Your task to perform on an android device: Go to Android settings Image 0: 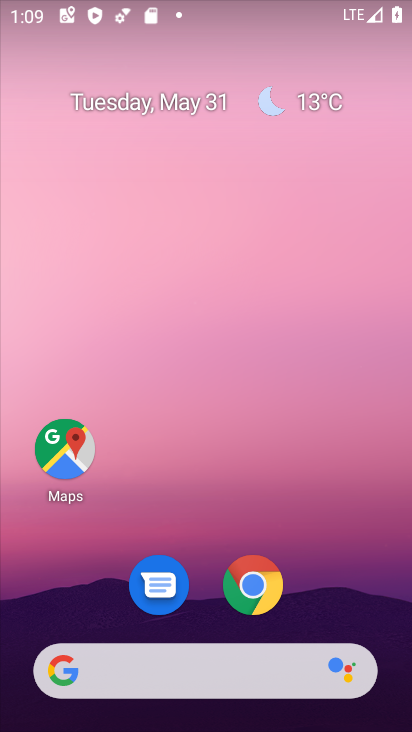
Step 0: drag from (216, 514) to (196, 36)
Your task to perform on an android device: Go to Android settings Image 1: 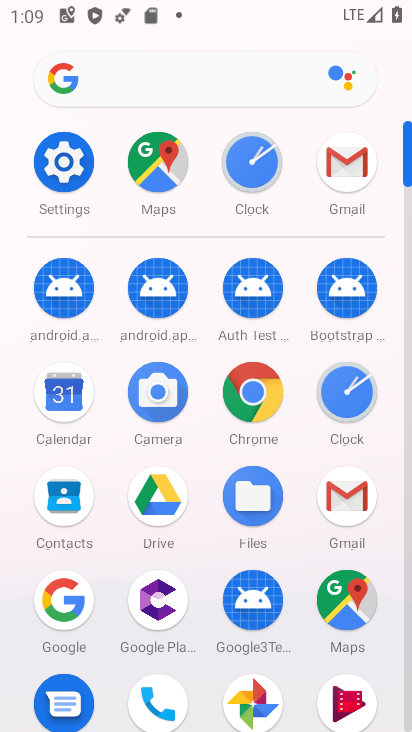
Step 1: click (76, 166)
Your task to perform on an android device: Go to Android settings Image 2: 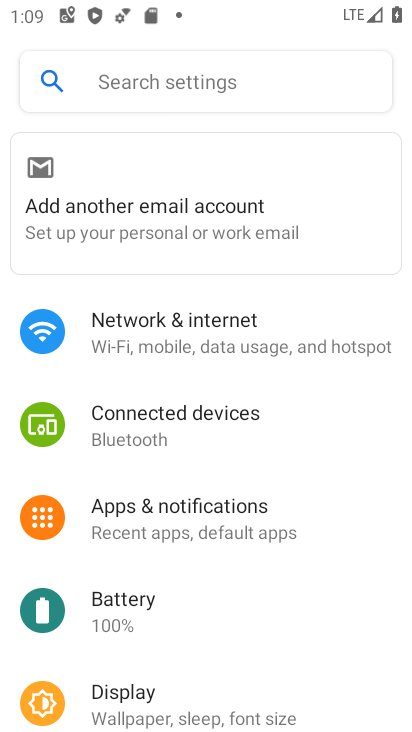
Step 2: drag from (237, 653) to (228, 241)
Your task to perform on an android device: Go to Android settings Image 3: 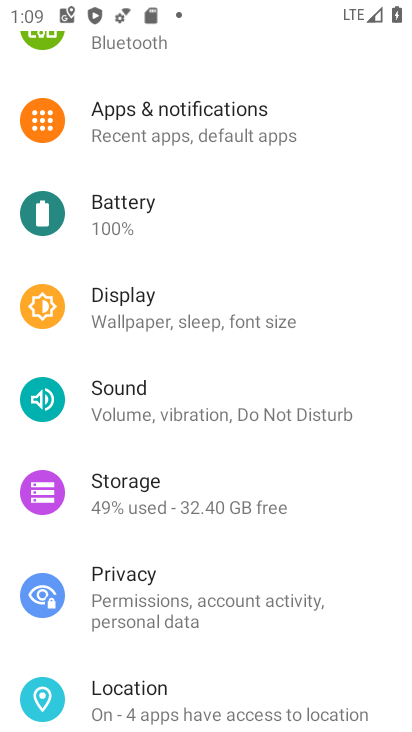
Step 3: drag from (224, 534) to (216, 17)
Your task to perform on an android device: Go to Android settings Image 4: 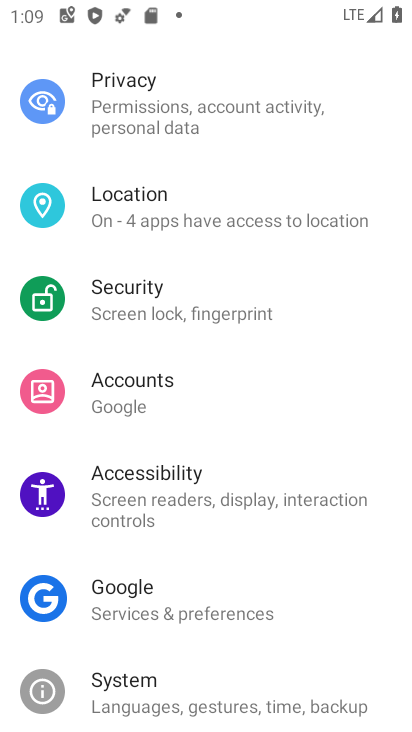
Step 4: drag from (212, 541) to (211, 299)
Your task to perform on an android device: Go to Android settings Image 5: 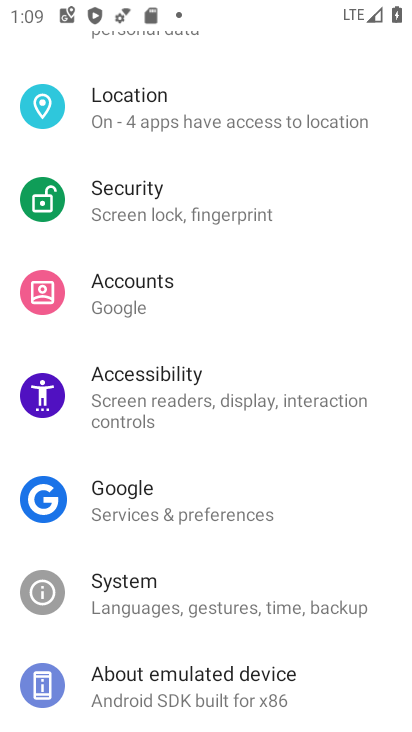
Step 5: click (206, 677)
Your task to perform on an android device: Go to Android settings Image 6: 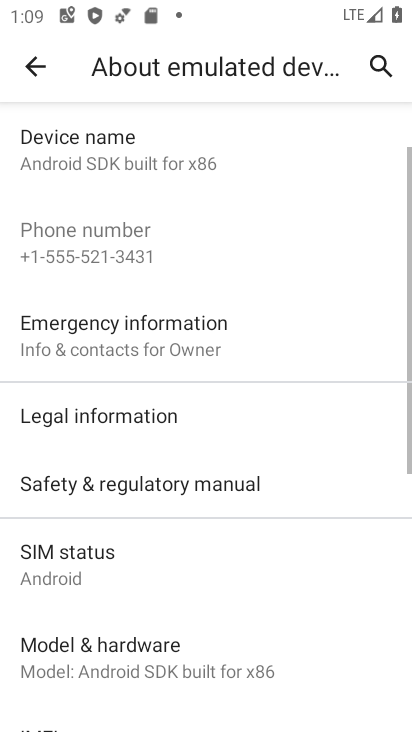
Step 6: task complete